Your task to perform on an android device: find photos in the google photos app Image 0: 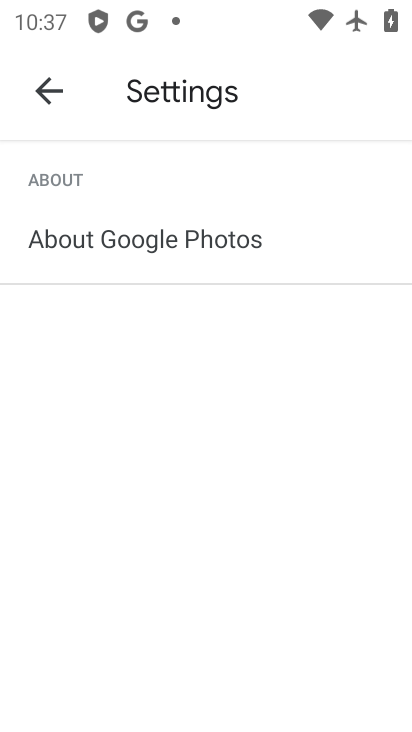
Step 0: press home button
Your task to perform on an android device: find photos in the google photos app Image 1: 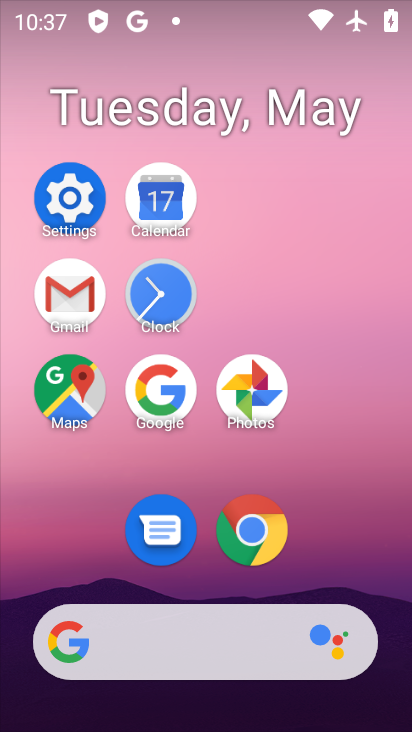
Step 1: drag from (361, 484) to (401, 175)
Your task to perform on an android device: find photos in the google photos app Image 2: 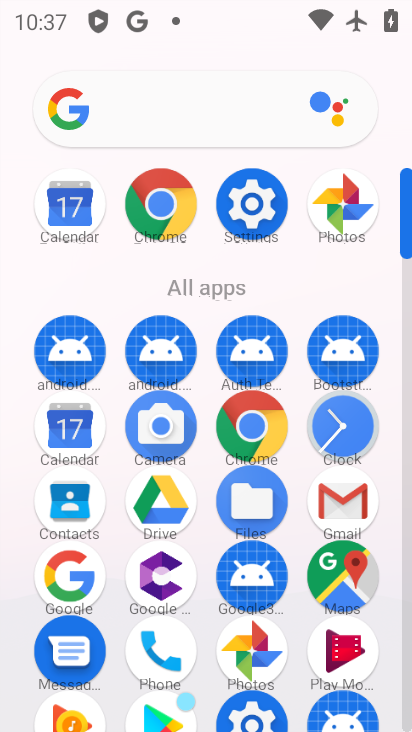
Step 2: click (244, 644)
Your task to perform on an android device: find photos in the google photos app Image 3: 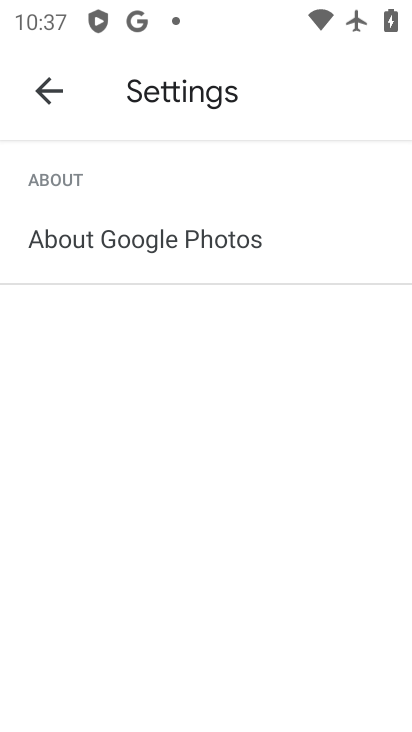
Step 3: click (51, 112)
Your task to perform on an android device: find photos in the google photos app Image 4: 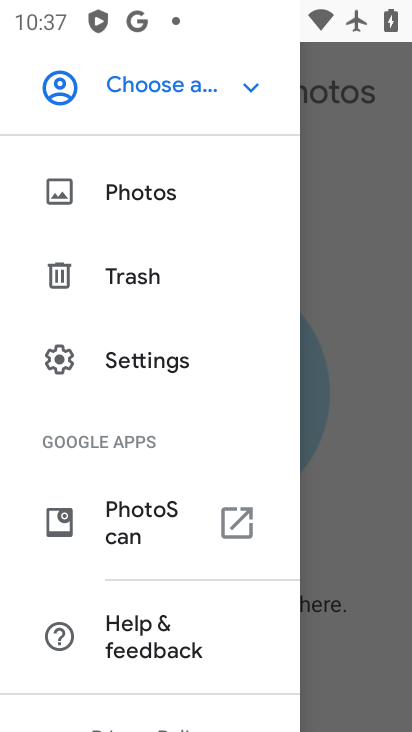
Step 4: click (378, 192)
Your task to perform on an android device: find photos in the google photos app Image 5: 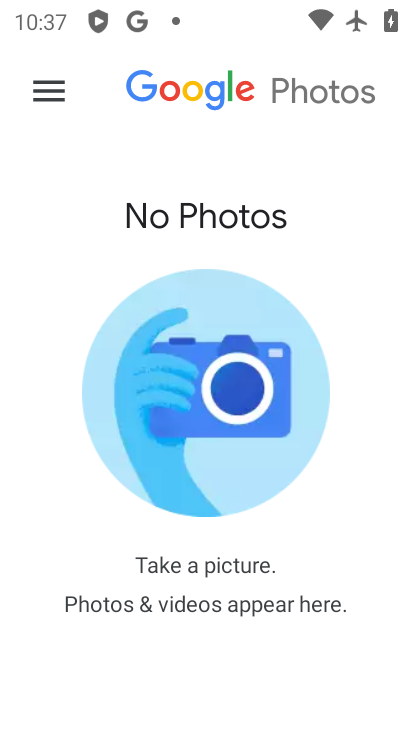
Step 5: click (71, 92)
Your task to perform on an android device: find photos in the google photos app Image 6: 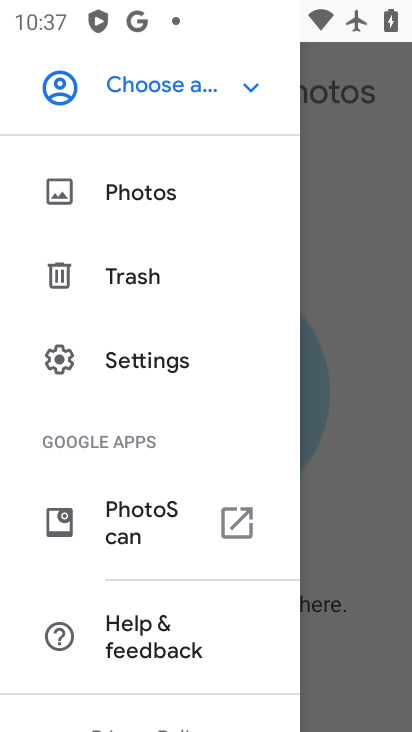
Step 6: click (122, 201)
Your task to perform on an android device: find photos in the google photos app Image 7: 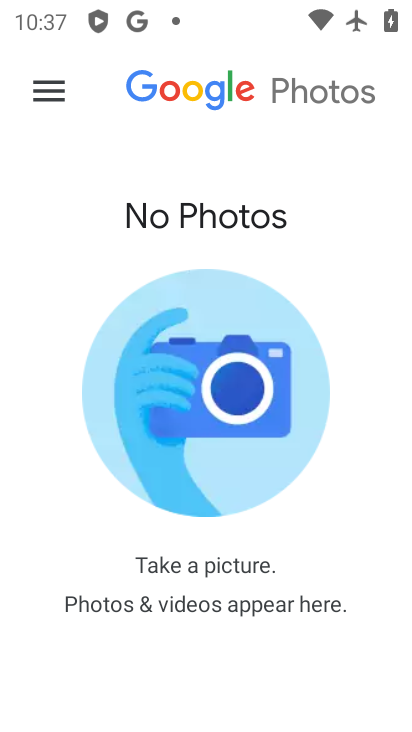
Step 7: task complete